Your task to perform on an android device: Open Google Maps Image 0: 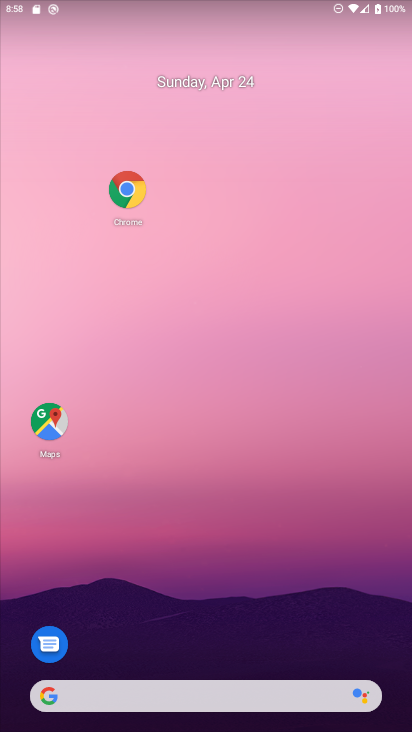
Step 0: drag from (234, 651) to (234, 192)
Your task to perform on an android device: Open Google Maps Image 1: 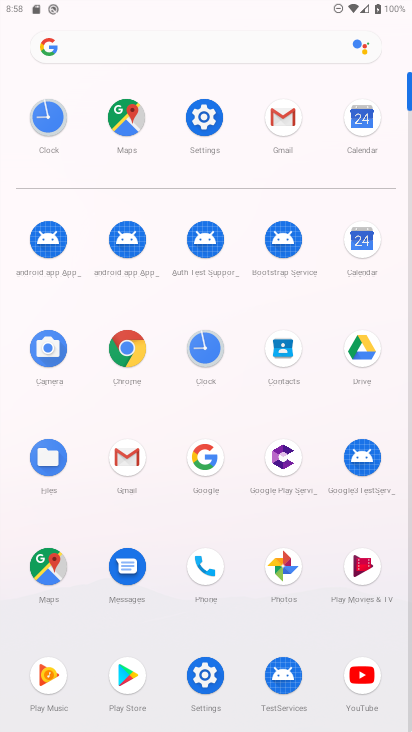
Step 1: drag from (233, 634) to (254, 280)
Your task to perform on an android device: Open Google Maps Image 2: 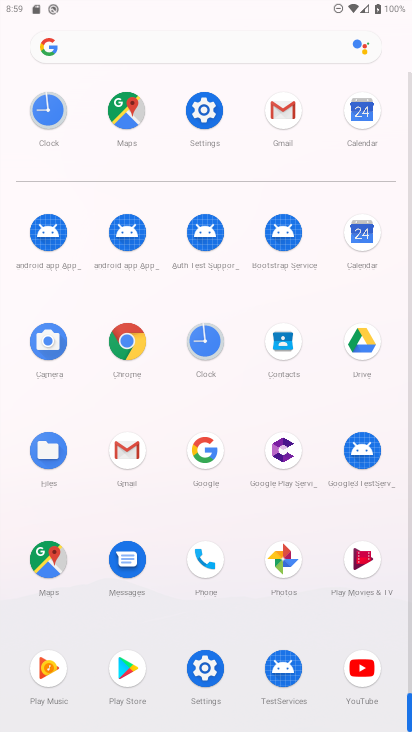
Step 2: click (42, 556)
Your task to perform on an android device: Open Google Maps Image 3: 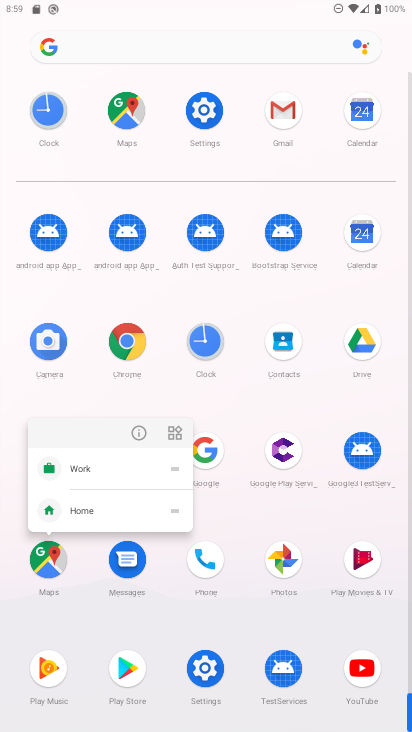
Step 3: click (143, 432)
Your task to perform on an android device: Open Google Maps Image 4: 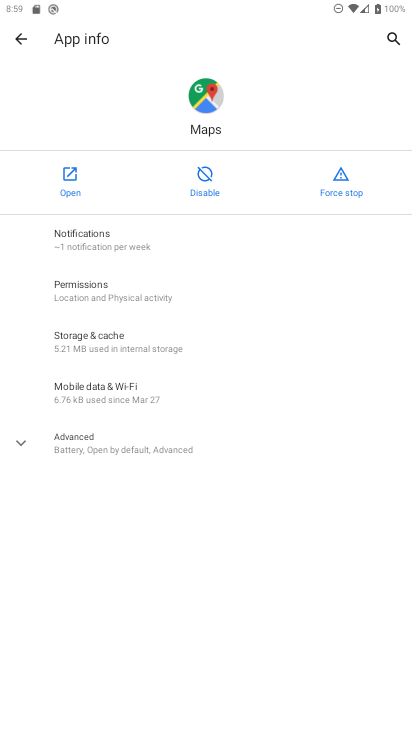
Step 4: click (76, 183)
Your task to perform on an android device: Open Google Maps Image 5: 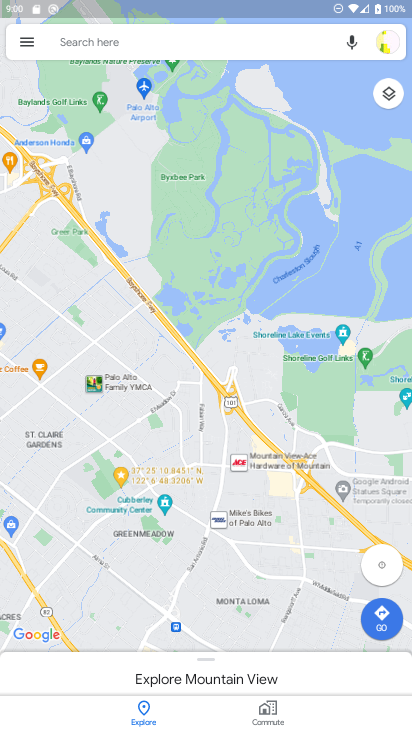
Step 5: task complete